Your task to perform on an android device: allow notifications from all sites in the chrome app Image 0: 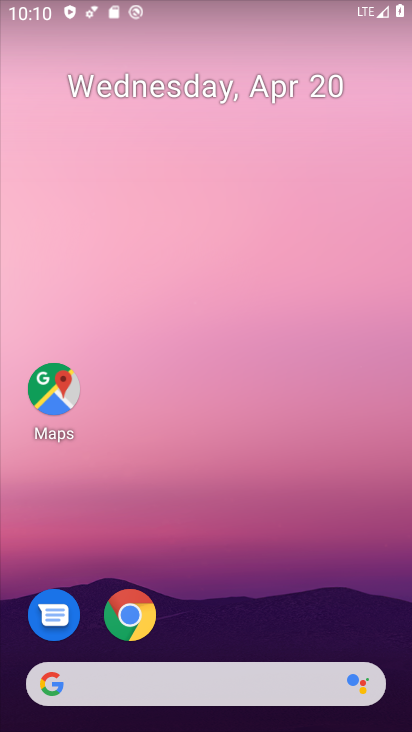
Step 0: click (120, 630)
Your task to perform on an android device: allow notifications from all sites in the chrome app Image 1: 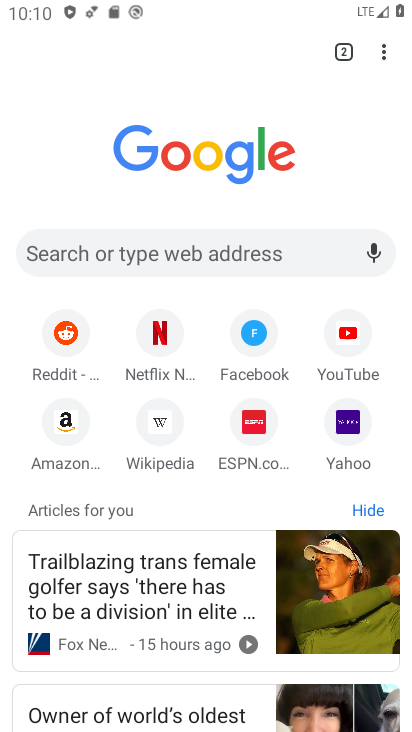
Step 1: click (389, 55)
Your task to perform on an android device: allow notifications from all sites in the chrome app Image 2: 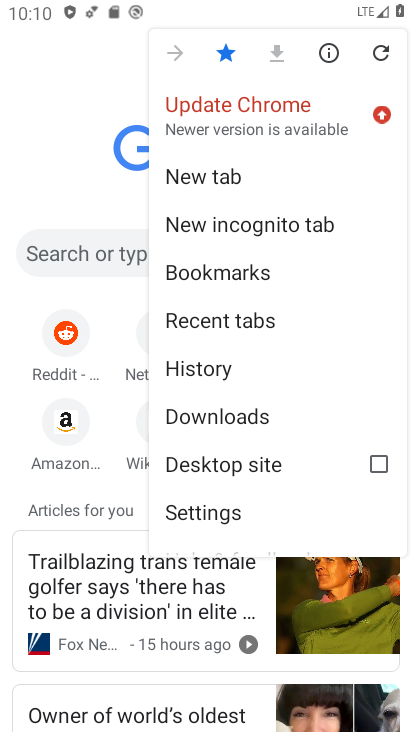
Step 2: click (249, 506)
Your task to perform on an android device: allow notifications from all sites in the chrome app Image 3: 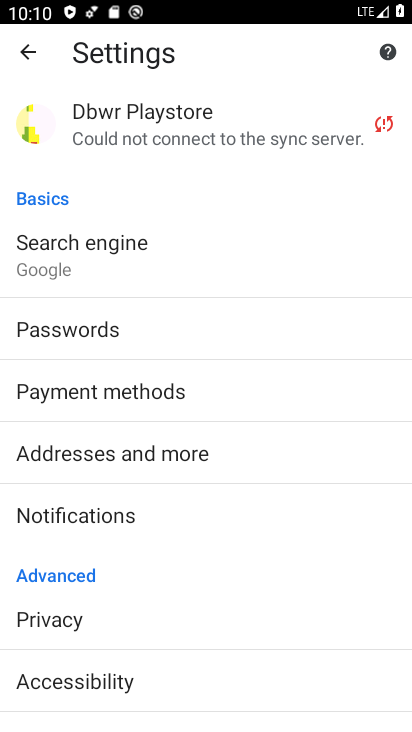
Step 3: drag from (238, 557) to (238, 482)
Your task to perform on an android device: allow notifications from all sites in the chrome app Image 4: 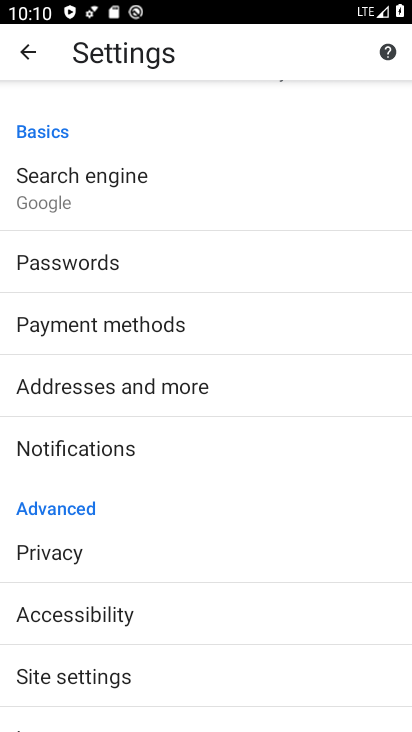
Step 4: click (204, 424)
Your task to perform on an android device: allow notifications from all sites in the chrome app Image 5: 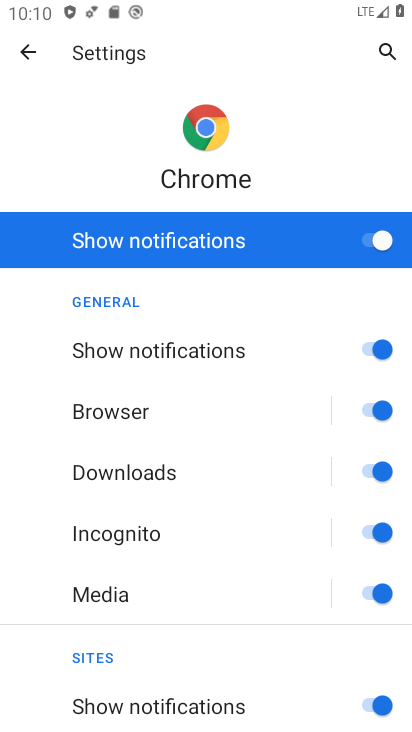
Step 5: task complete